Your task to perform on an android device: open app "Google Find My Device" Image 0: 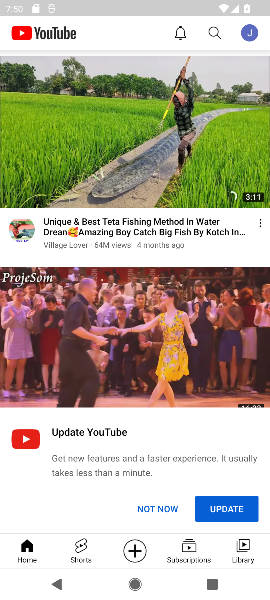
Step 0: press home button
Your task to perform on an android device: open app "Google Find My Device" Image 1: 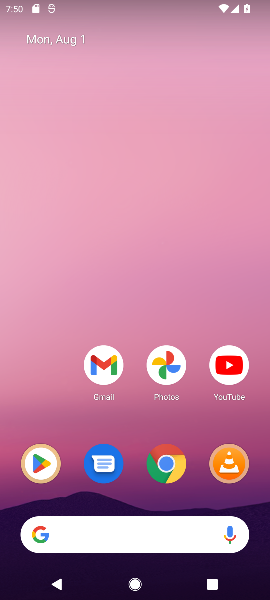
Step 1: drag from (128, 507) to (137, 157)
Your task to perform on an android device: open app "Google Find My Device" Image 2: 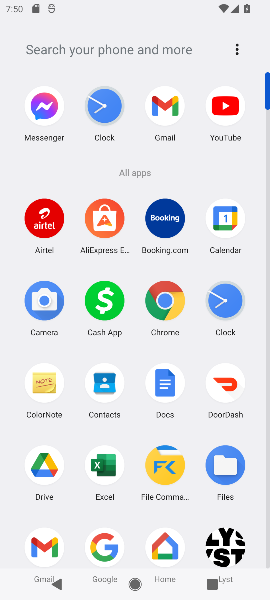
Step 2: click (50, 586)
Your task to perform on an android device: open app "Google Find My Device" Image 3: 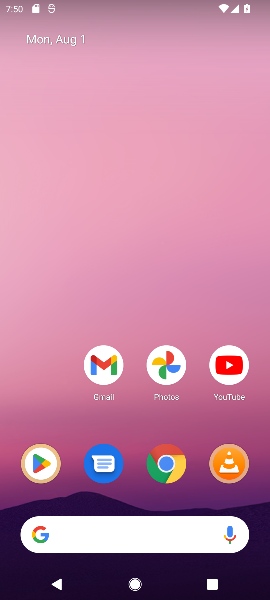
Step 3: click (32, 480)
Your task to perform on an android device: open app "Google Find My Device" Image 4: 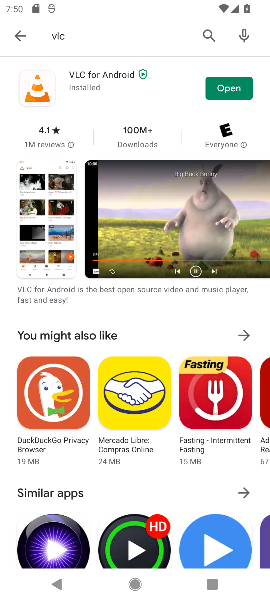
Step 4: click (200, 35)
Your task to perform on an android device: open app "Google Find My Device" Image 5: 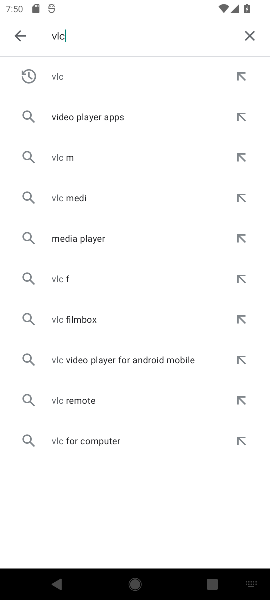
Step 5: click (243, 35)
Your task to perform on an android device: open app "Google Find My Device" Image 6: 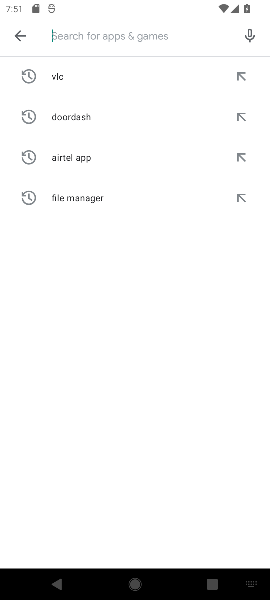
Step 6: type "find my device"
Your task to perform on an android device: open app "Google Find My Device" Image 7: 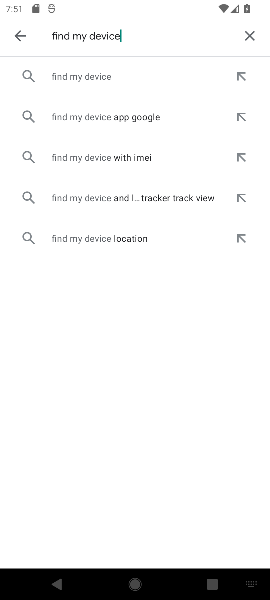
Step 7: click (100, 77)
Your task to perform on an android device: open app "Google Find My Device" Image 8: 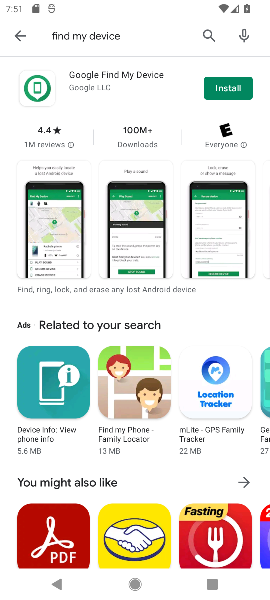
Step 8: click (230, 85)
Your task to perform on an android device: open app "Google Find My Device" Image 9: 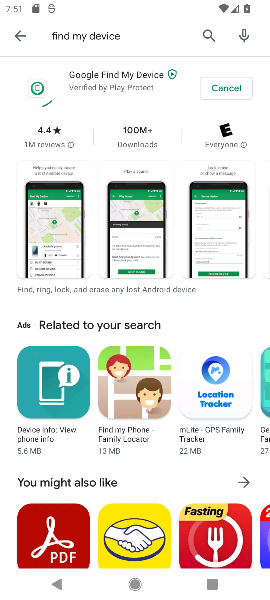
Step 9: task complete